Your task to perform on an android device: remove spam from my inbox in the gmail app Image 0: 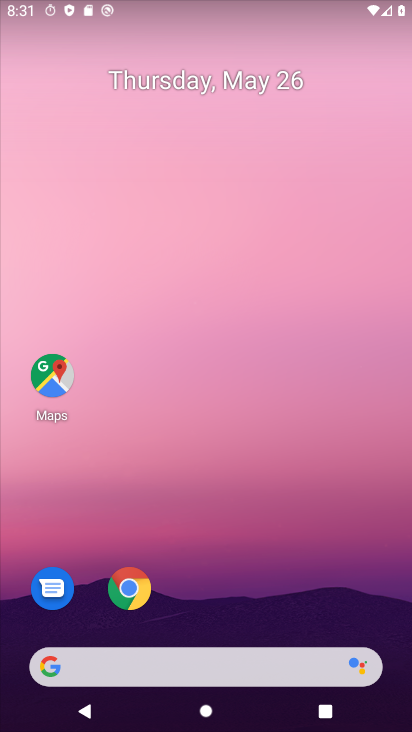
Step 0: drag from (264, 627) to (324, 3)
Your task to perform on an android device: remove spam from my inbox in the gmail app Image 1: 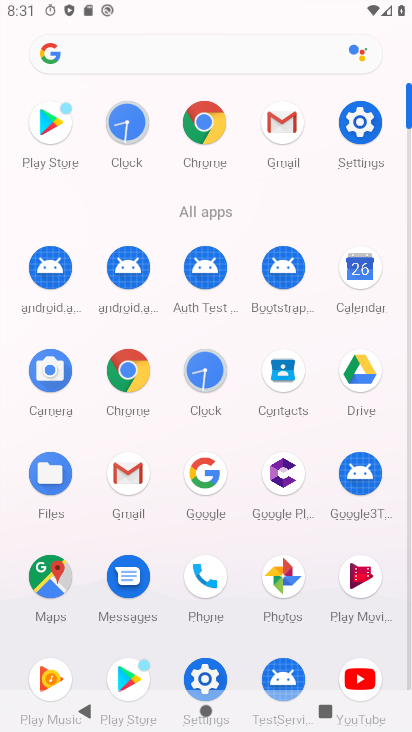
Step 1: click (116, 468)
Your task to perform on an android device: remove spam from my inbox in the gmail app Image 2: 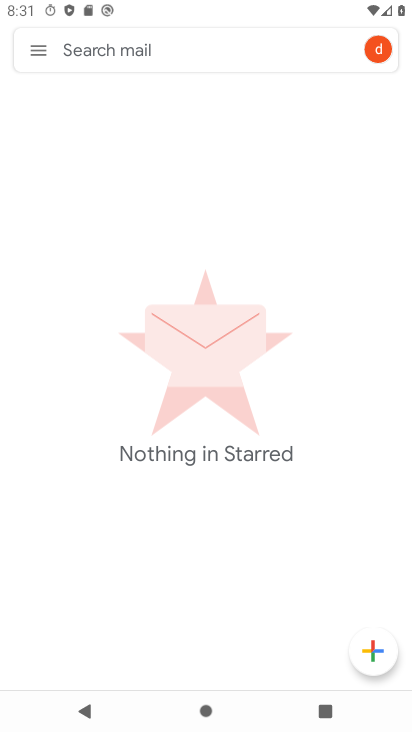
Step 2: click (39, 50)
Your task to perform on an android device: remove spam from my inbox in the gmail app Image 3: 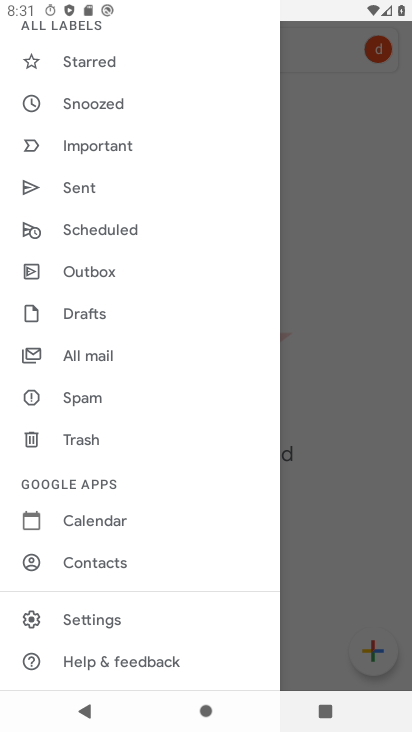
Step 3: click (123, 390)
Your task to perform on an android device: remove spam from my inbox in the gmail app Image 4: 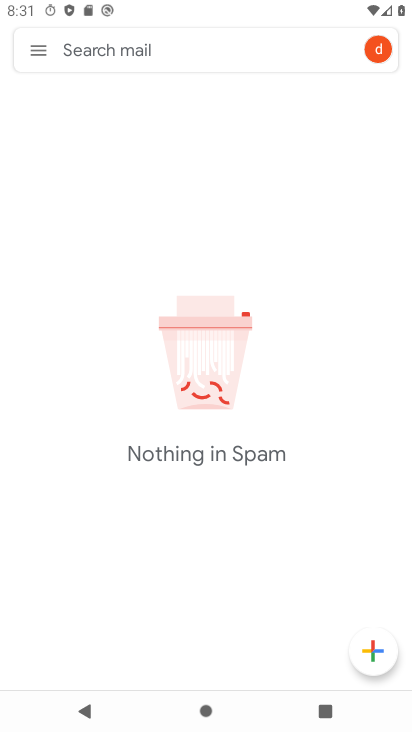
Step 4: task complete